Your task to perform on an android device: turn pop-ups on in chrome Image 0: 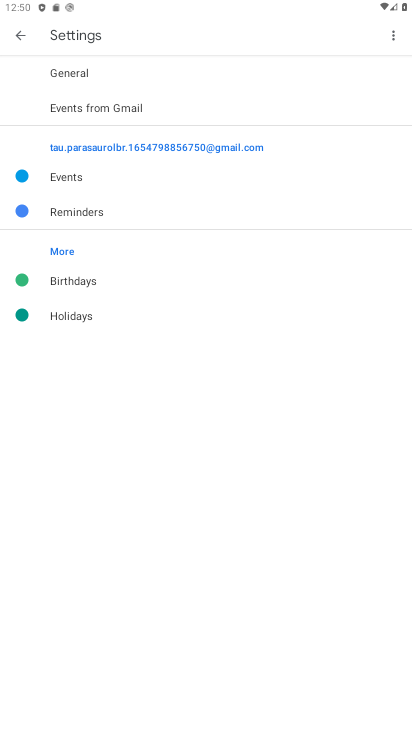
Step 0: press home button
Your task to perform on an android device: turn pop-ups on in chrome Image 1: 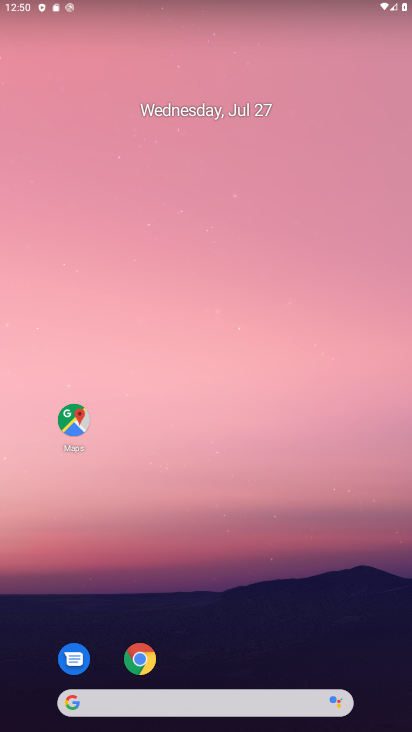
Step 1: drag from (307, 594) to (296, 48)
Your task to perform on an android device: turn pop-ups on in chrome Image 2: 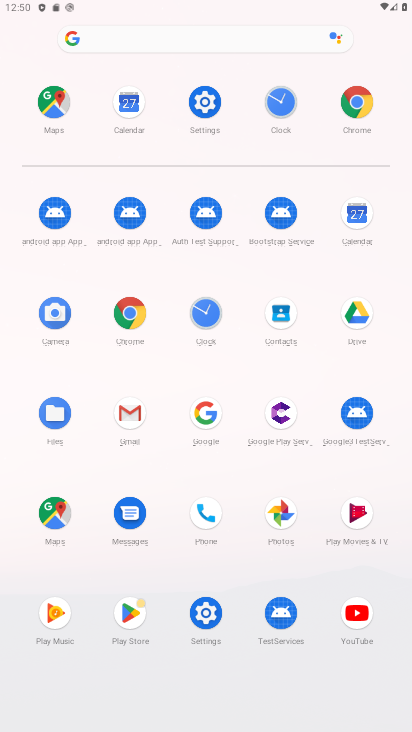
Step 2: click (359, 96)
Your task to perform on an android device: turn pop-ups on in chrome Image 3: 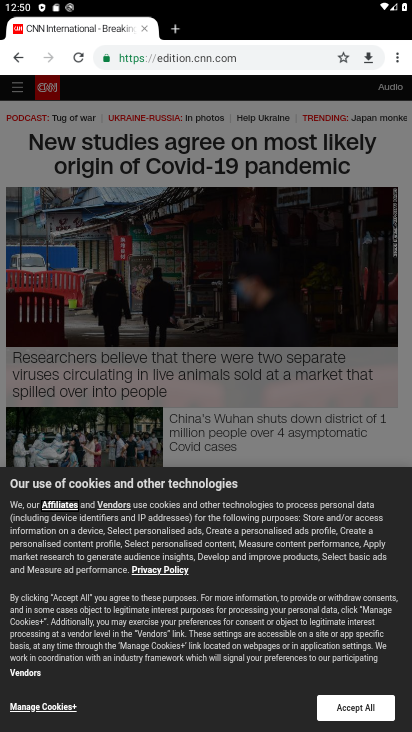
Step 3: click (399, 52)
Your task to perform on an android device: turn pop-ups on in chrome Image 4: 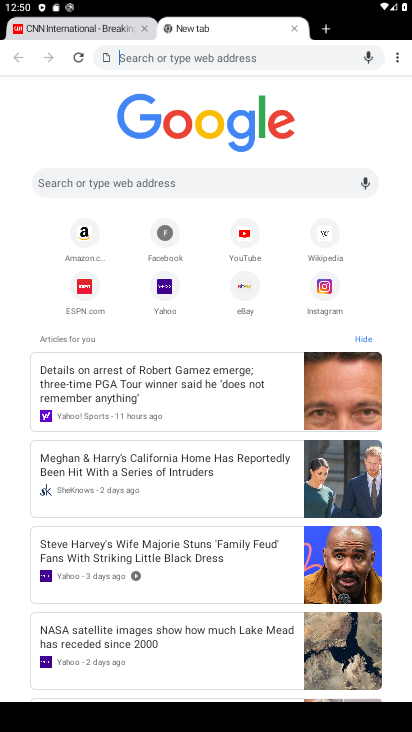
Step 4: click (292, 35)
Your task to perform on an android device: turn pop-ups on in chrome Image 5: 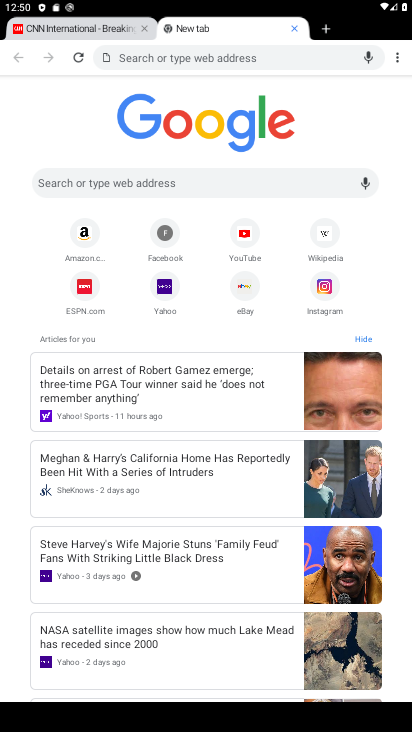
Step 5: click (292, 19)
Your task to perform on an android device: turn pop-ups on in chrome Image 6: 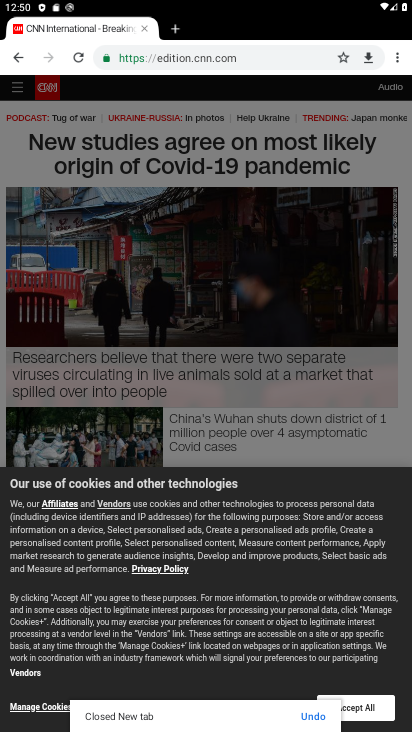
Step 6: drag from (398, 57) to (310, 354)
Your task to perform on an android device: turn pop-ups on in chrome Image 7: 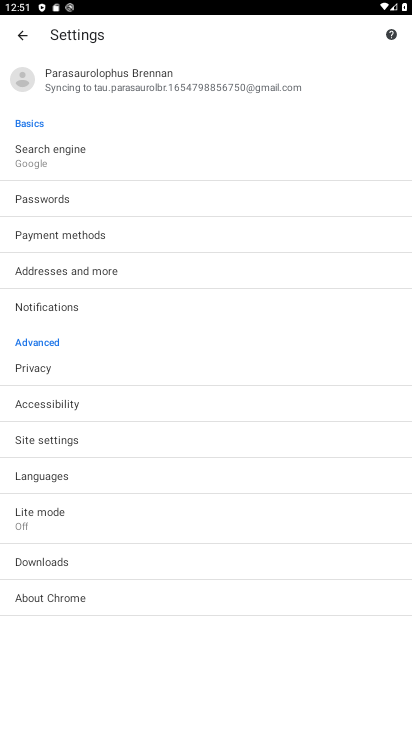
Step 7: click (90, 445)
Your task to perform on an android device: turn pop-ups on in chrome Image 8: 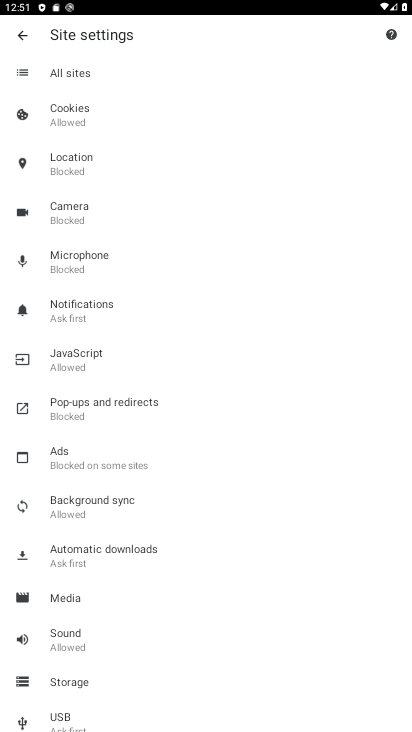
Step 8: click (95, 398)
Your task to perform on an android device: turn pop-ups on in chrome Image 9: 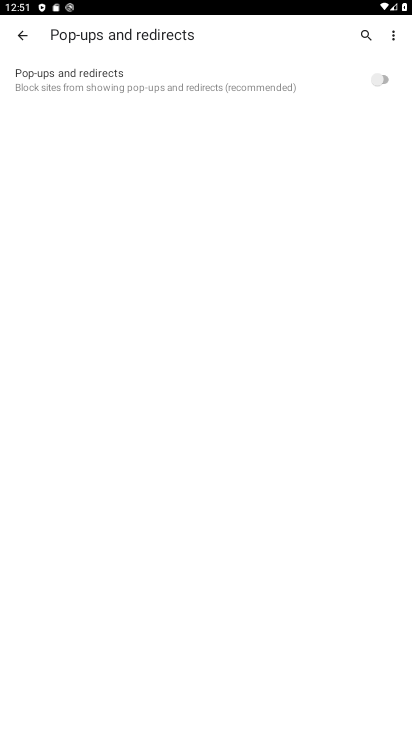
Step 9: click (366, 78)
Your task to perform on an android device: turn pop-ups on in chrome Image 10: 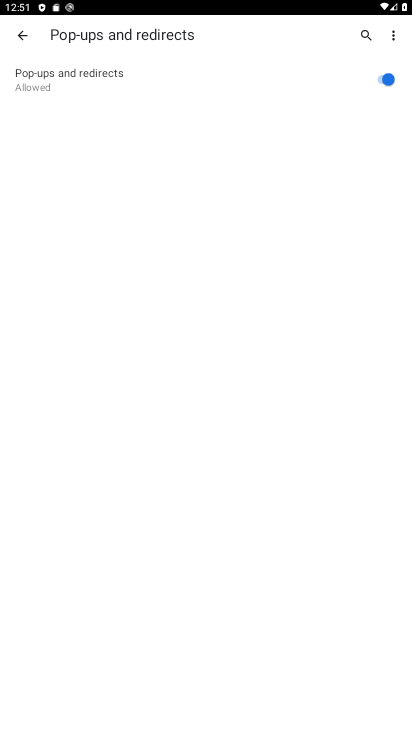
Step 10: task complete